Your task to perform on an android device: Open calendar and show me the second week of next month Image 0: 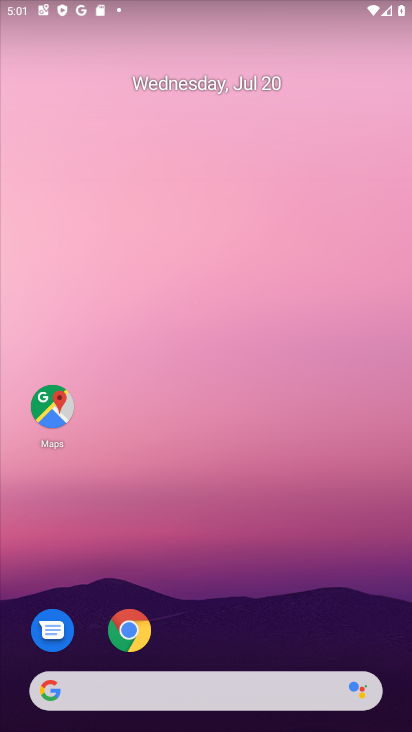
Step 0: drag from (216, 691) to (235, 285)
Your task to perform on an android device: Open calendar and show me the second week of next month Image 1: 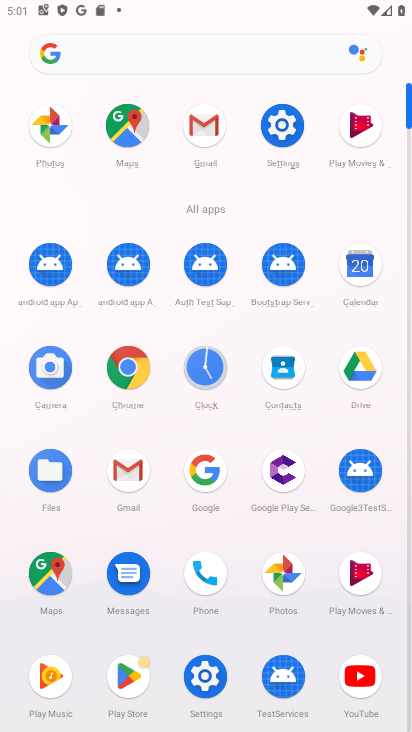
Step 1: click (361, 269)
Your task to perform on an android device: Open calendar and show me the second week of next month Image 2: 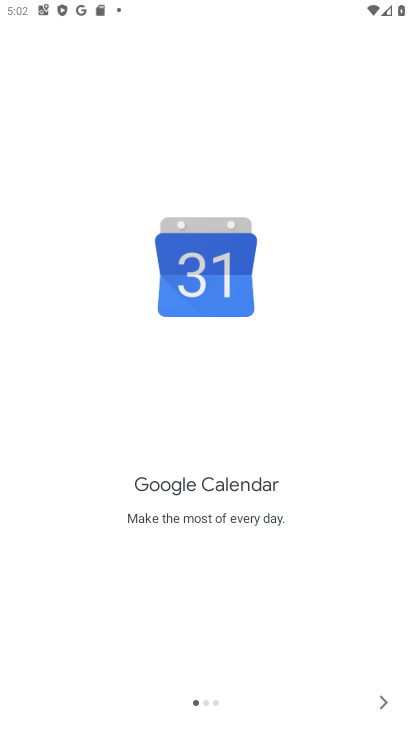
Step 2: click (384, 699)
Your task to perform on an android device: Open calendar and show me the second week of next month Image 3: 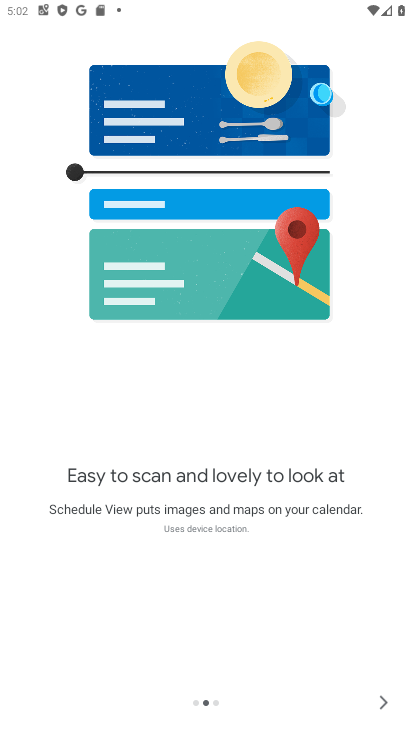
Step 3: click (384, 699)
Your task to perform on an android device: Open calendar and show me the second week of next month Image 4: 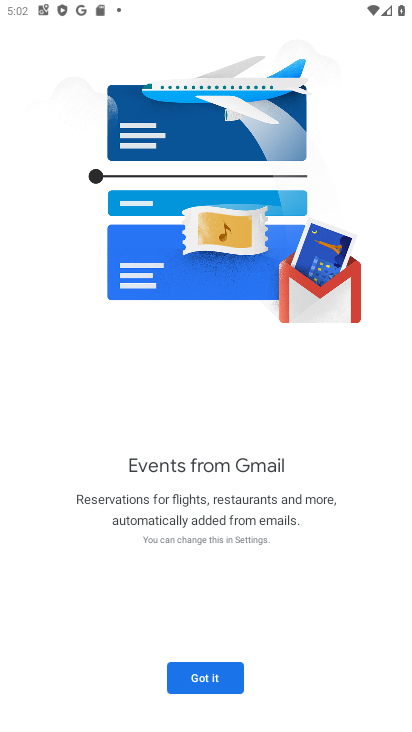
Step 4: click (210, 681)
Your task to perform on an android device: Open calendar and show me the second week of next month Image 5: 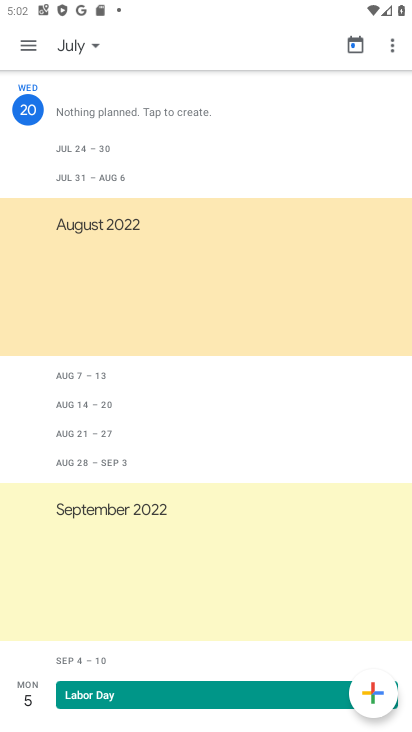
Step 5: click (98, 44)
Your task to perform on an android device: Open calendar and show me the second week of next month Image 6: 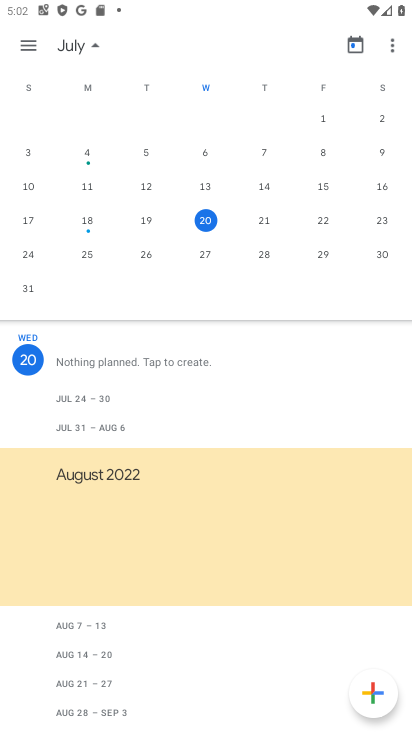
Step 6: drag from (360, 221) to (5, 342)
Your task to perform on an android device: Open calendar and show me the second week of next month Image 7: 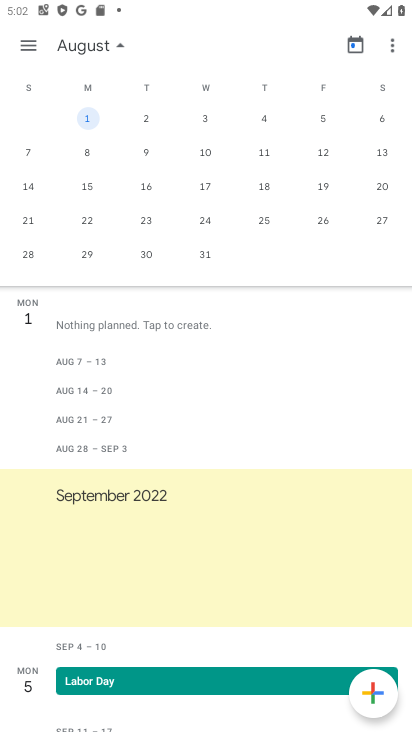
Step 7: click (90, 151)
Your task to perform on an android device: Open calendar and show me the second week of next month Image 8: 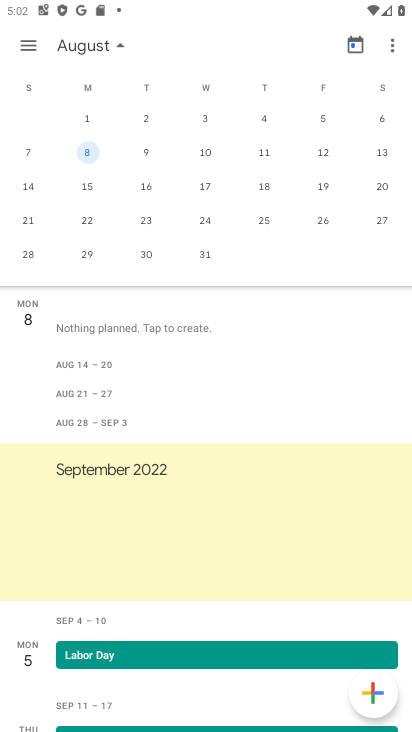
Step 8: click (22, 41)
Your task to perform on an android device: Open calendar and show me the second week of next month Image 9: 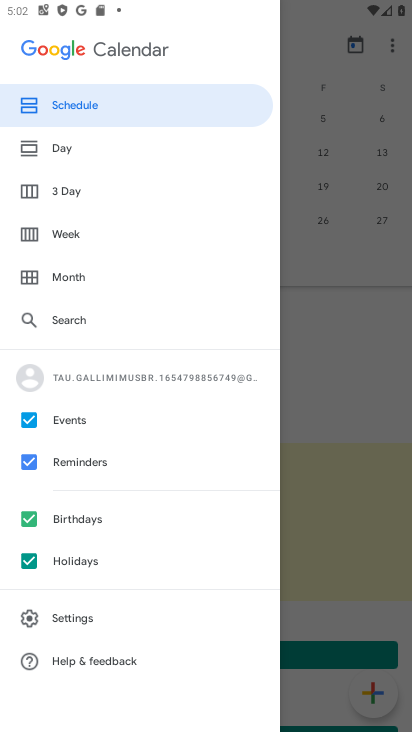
Step 9: click (81, 228)
Your task to perform on an android device: Open calendar and show me the second week of next month Image 10: 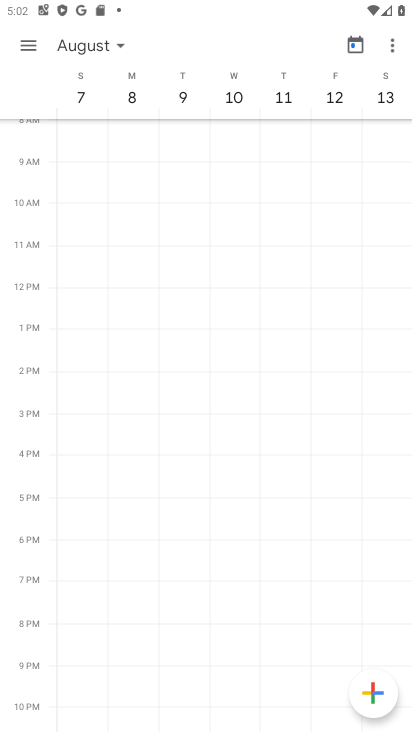
Step 10: task complete